Your task to perform on an android device: Open calendar and show me the first week of next month Image 0: 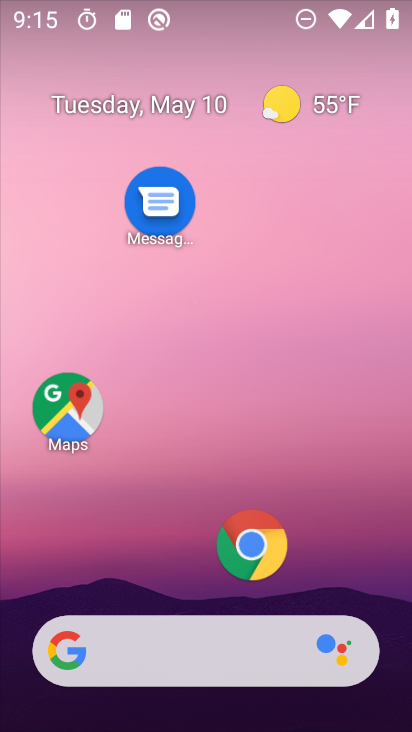
Step 0: drag from (177, 582) to (218, 240)
Your task to perform on an android device: Open calendar and show me the first week of next month Image 1: 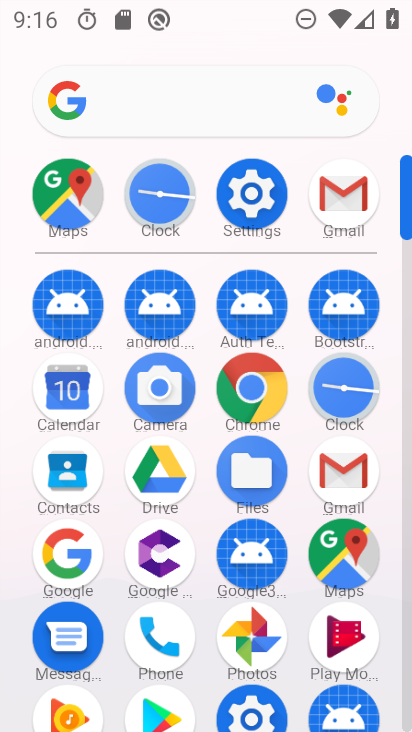
Step 1: drag from (109, 552) to (150, 362)
Your task to perform on an android device: Open calendar and show me the first week of next month Image 2: 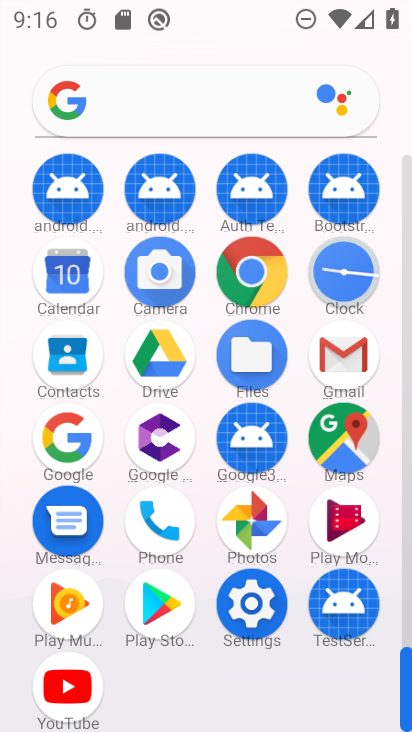
Step 2: click (74, 272)
Your task to perform on an android device: Open calendar and show me the first week of next month Image 3: 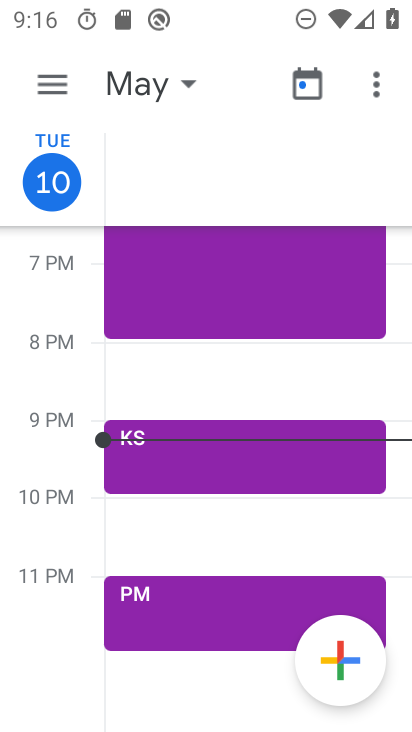
Step 3: click (189, 87)
Your task to perform on an android device: Open calendar and show me the first week of next month Image 4: 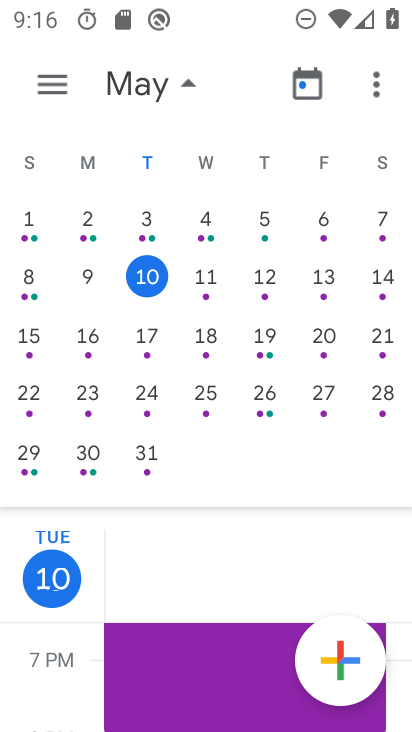
Step 4: drag from (351, 325) to (27, 323)
Your task to perform on an android device: Open calendar and show me the first week of next month Image 5: 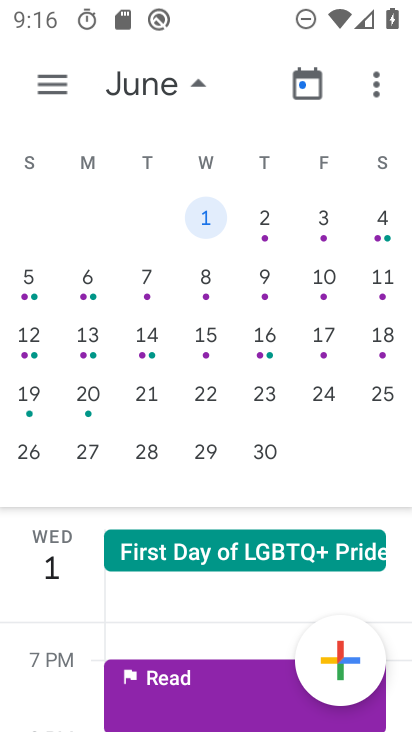
Step 5: click (195, 221)
Your task to perform on an android device: Open calendar and show me the first week of next month Image 6: 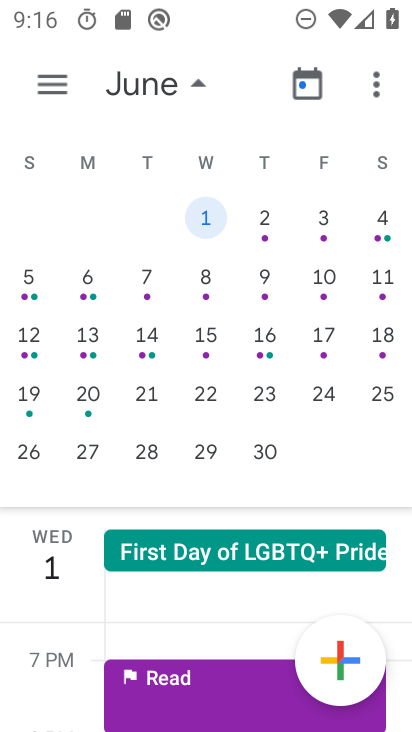
Step 6: click (254, 208)
Your task to perform on an android device: Open calendar and show me the first week of next month Image 7: 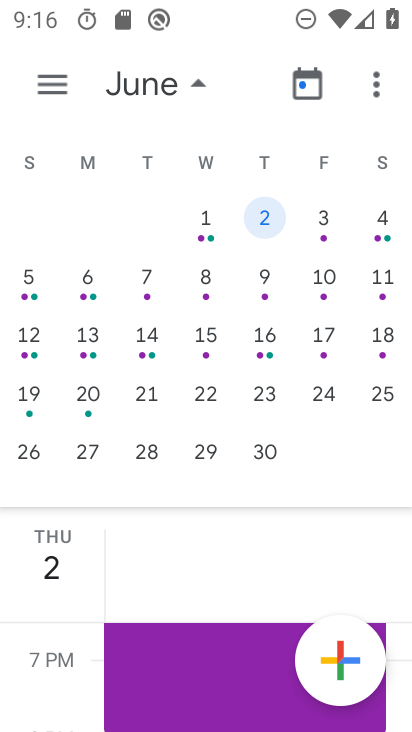
Step 7: click (317, 219)
Your task to perform on an android device: Open calendar and show me the first week of next month Image 8: 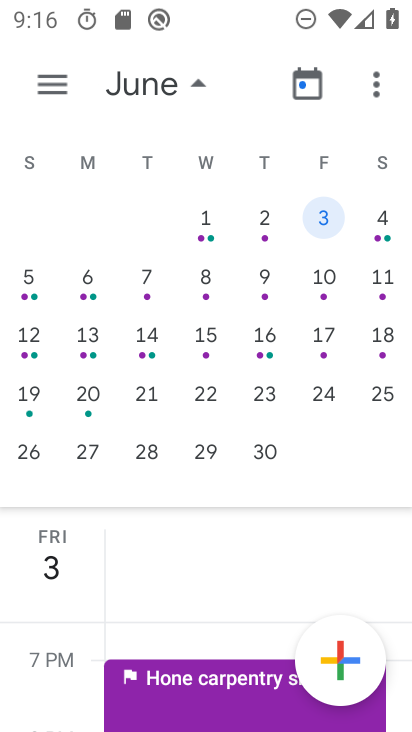
Step 8: click (386, 221)
Your task to perform on an android device: Open calendar and show me the first week of next month Image 9: 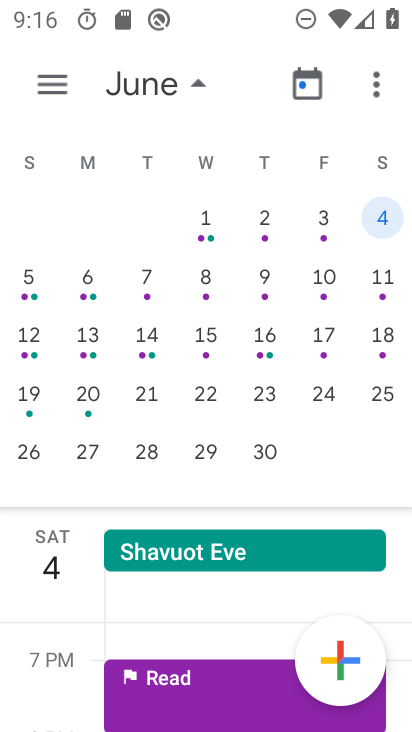
Step 9: task complete